Your task to perform on an android device: turn on the 12-hour format for clock Image 0: 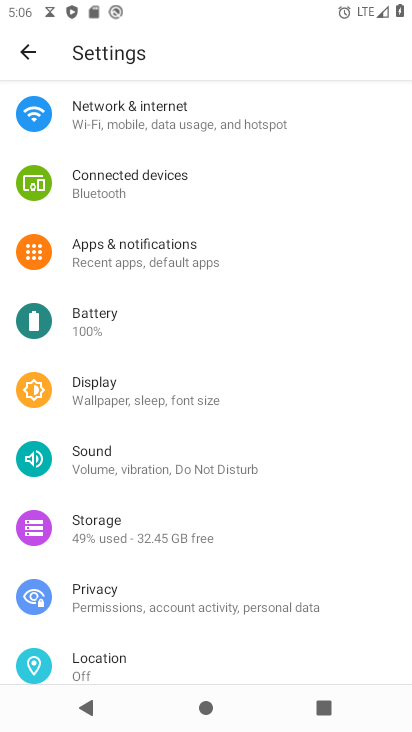
Step 0: press back button
Your task to perform on an android device: turn on the 12-hour format for clock Image 1: 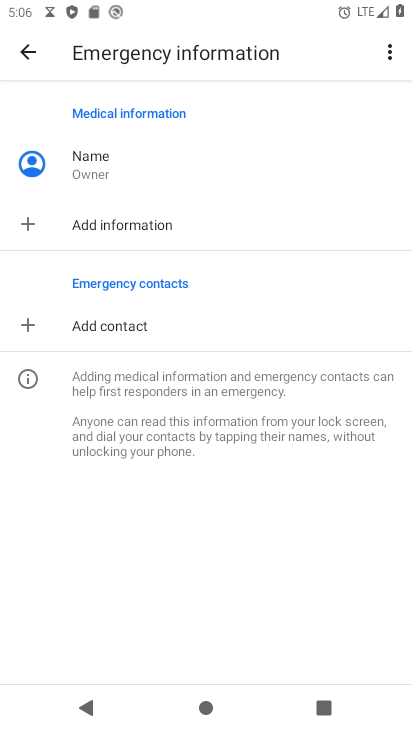
Step 1: press back button
Your task to perform on an android device: turn on the 12-hour format for clock Image 2: 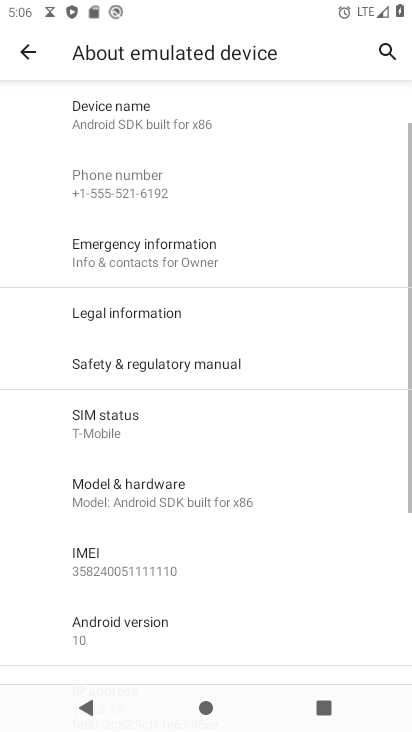
Step 2: press back button
Your task to perform on an android device: turn on the 12-hour format for clock Image 3: 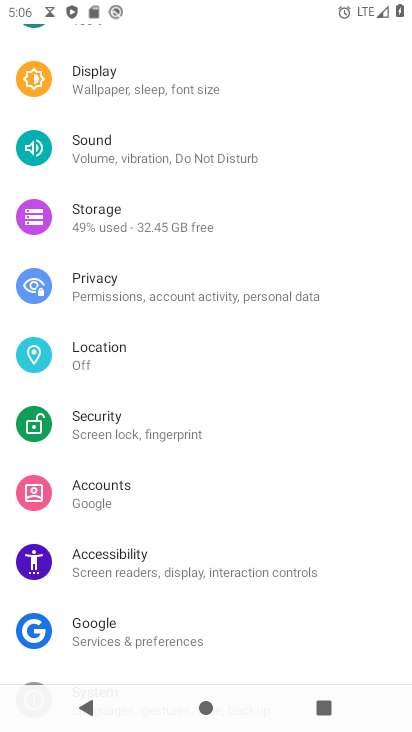
Step 3: press back button
Your task to perform on an android device: turn on the 12-hour format for clock Image 4: 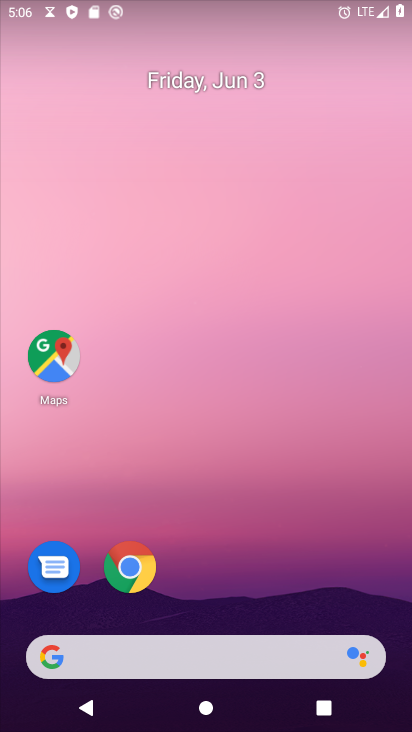
Step 4: drag from (268, 584) to (204, 73)
Your task to perform on an android device: turn on the 12-hour format for clock Image 5: 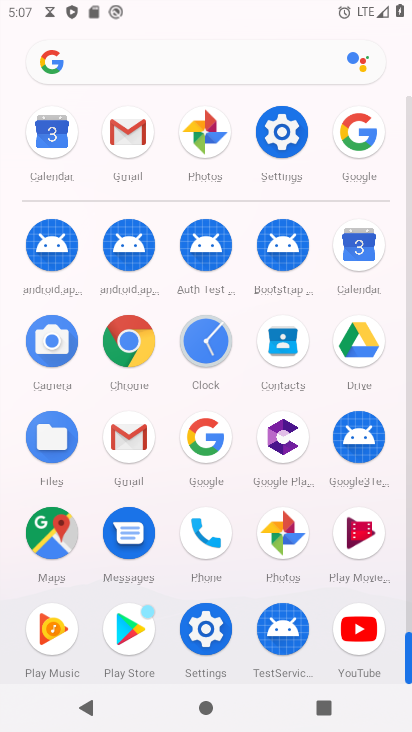
Step 5: click (206, 340)
Your task to perform on an android device: turn on the 12-hour format for clock Image 6: 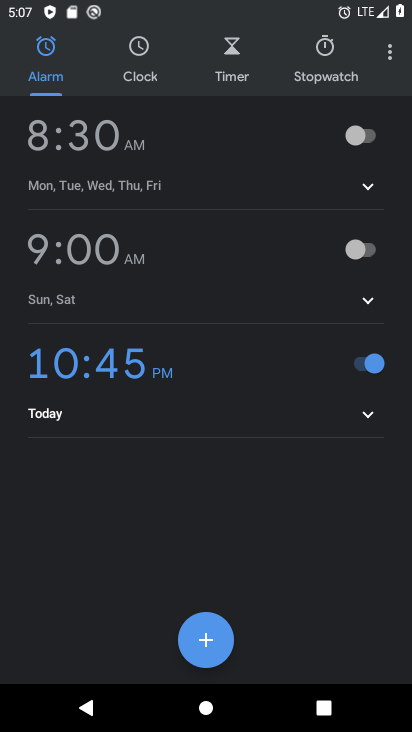
Step 6: click (390, 51)
Your task to perform on an android device: turn on the 12-hour format for clock Image 7: 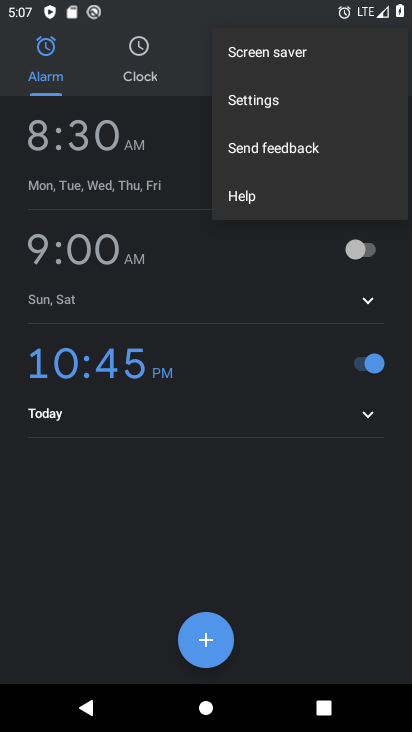
Step 7: click (272, 100)
Your task to perform on an android device: turn on the 12-hour format for clock Image 8: 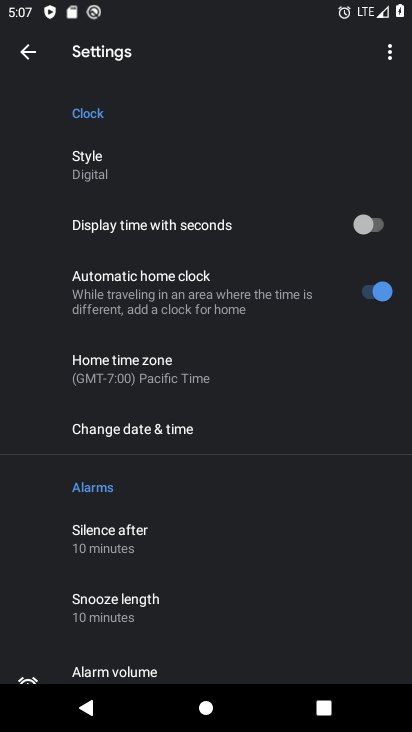
Step 8: click (167, 432)
Your task to perform on an android device: turn on the 12-hour format for clock Image 9: 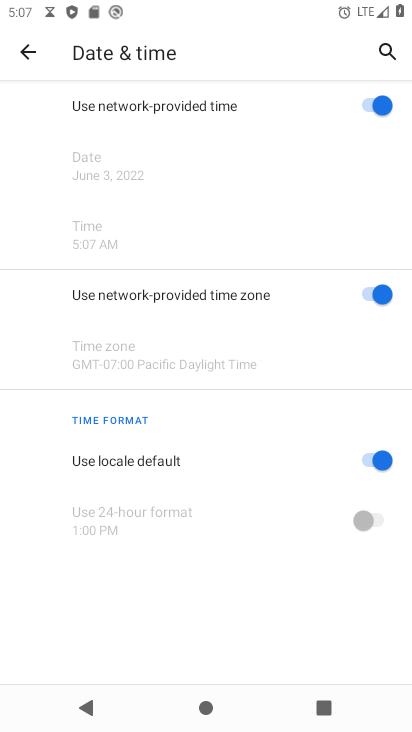
Step 9: task complete